Your task to perform on an android device: turn off improve location accuracy Image 0: 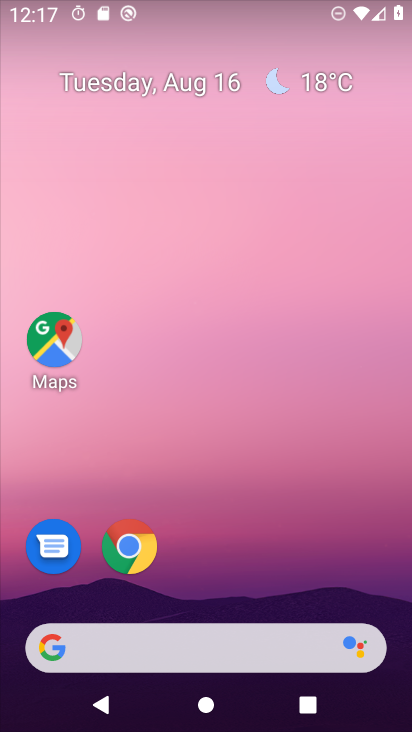
Step 0: drag from (248, 618) to (275, 75)
Your task to perform on an android device: turn off improve location accuracy Image 1: 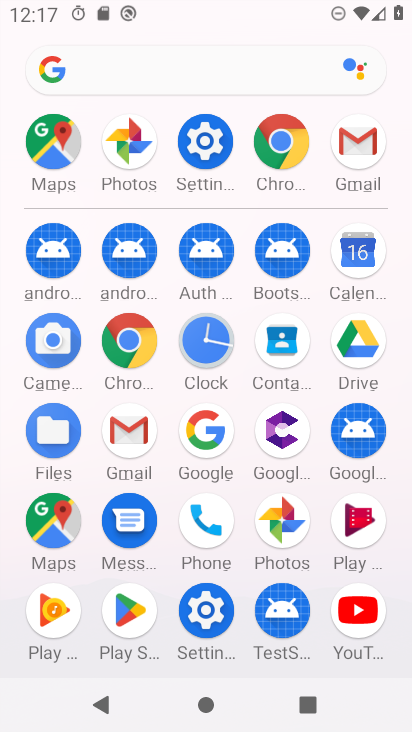
Step 1: click (212, 131)
Your task to perform on an android device: turn off improve location accuracy Image 2: 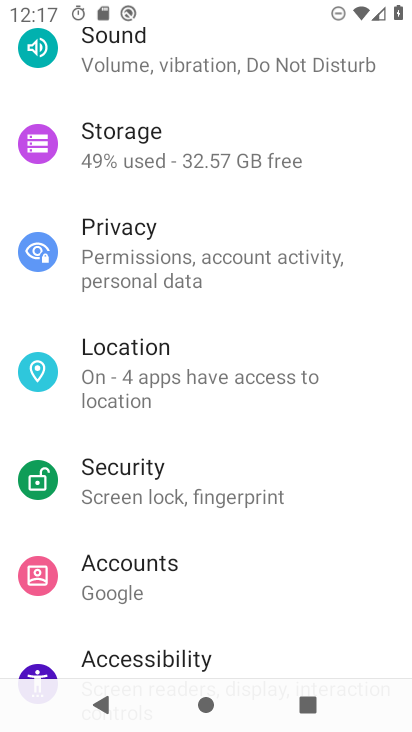
Step 2: drag from (121, 627) to (127, 442)
Your task to perform on an android device: turn off improve location accuracy Image 3: 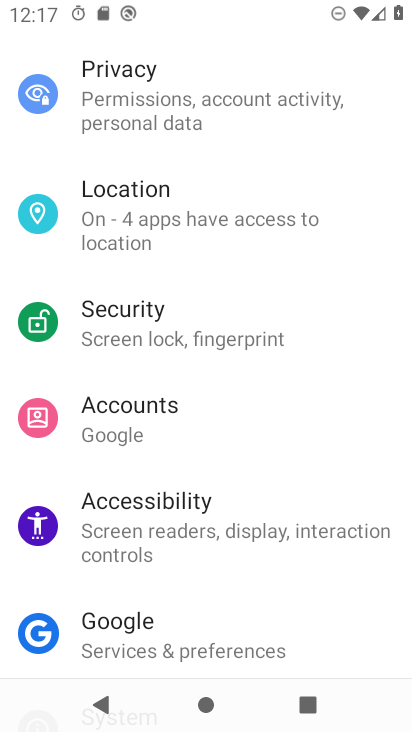
Step 3: click (132, 222)
Your task to perform on an android device: turn off improve location accuracy Image 4: 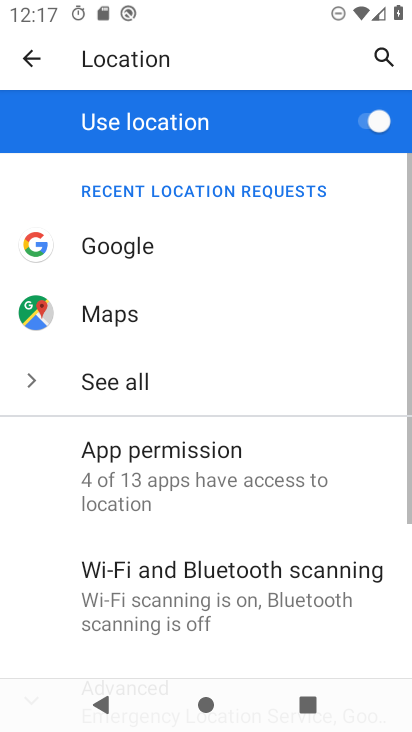
Step 4: drag from (245, 669) to (211, 342)
Your task to perform on an android device: turn off improve location accuracy Image 5: 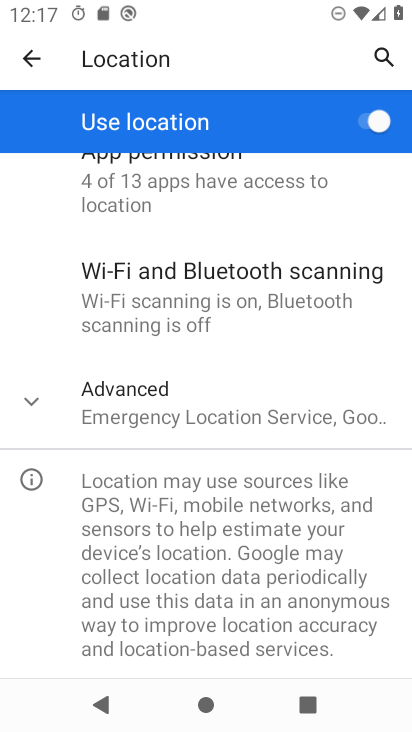
Step 5: click (173, 413)
Your task to perform on an android device: turn off improve location accuracy Image 6: 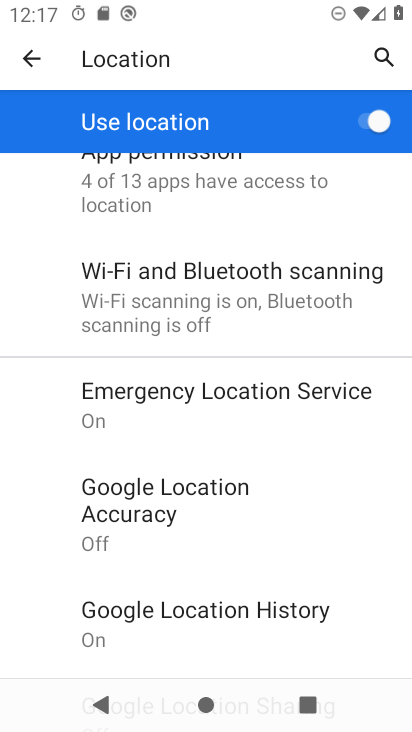
Step 6: drag from (184, 615) to (183, 316)
Your task to perform on an android device: turn off improve location accuracy Image 7: 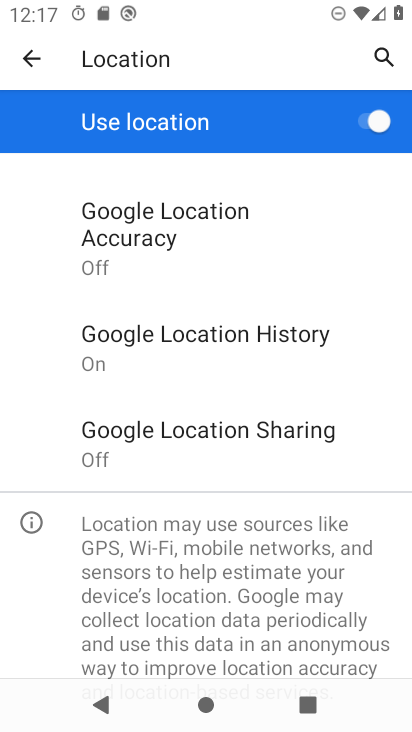
Step 7: click (180, 210)
Your task to perform on an android device: turn off improve location accuracy Image 8: 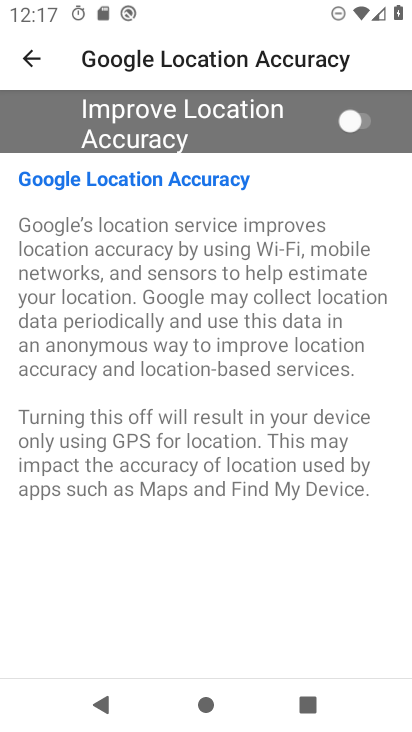
Step 8: task complete